Your task to perform on an android device: Open Android settings Image 0: 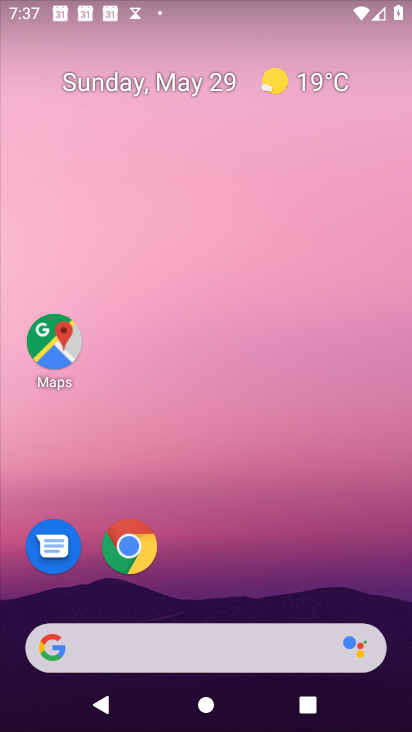
Step 0: drag from (196, 566) to (238, 3)
Your task to perform on an android device: Open Android settings Image 1: 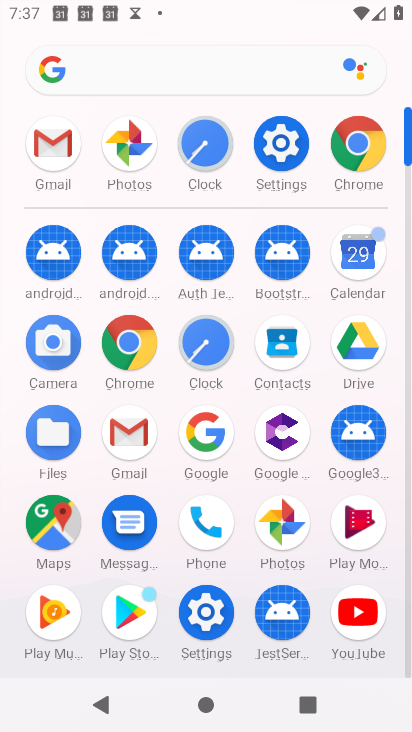
Step 1: click (278, 165)
Your task to perform on an android device: Open Android settings Image 2: 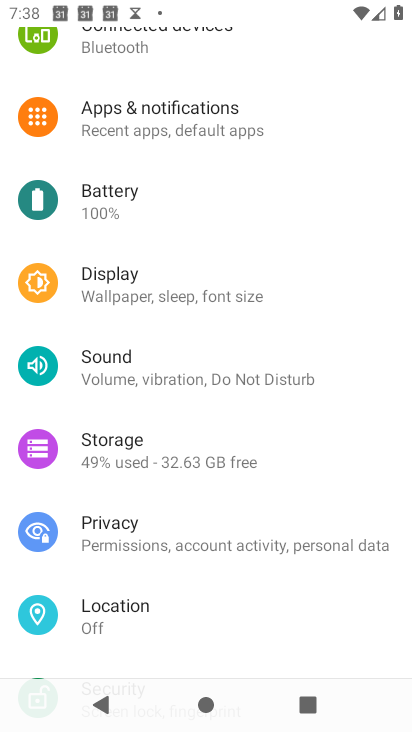
Step 2: drag from (138, 624) to (180, 42)
Your task to perform on an android device: Open Android settings Image 3: 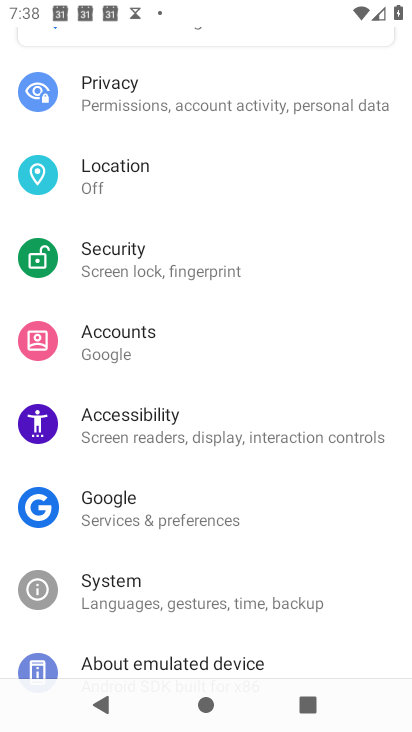
Step 3: click (99, 641)
Your task to perform on an android device: Open Android settings Image 4: 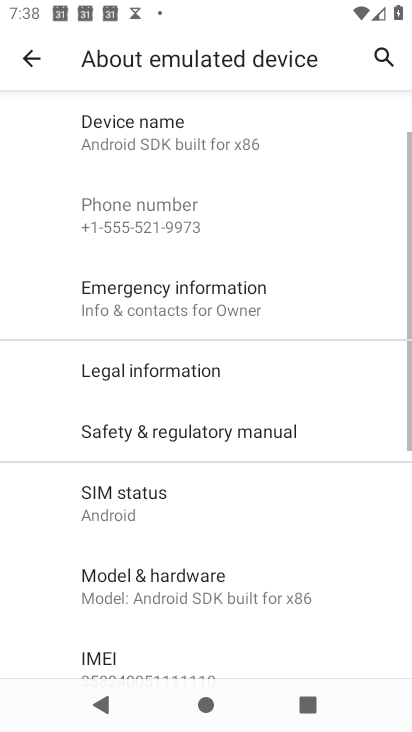
Step 4: drag from (186, 596) to (209, 212)
Your task to perform on an android device: Open Android settings Image 5: 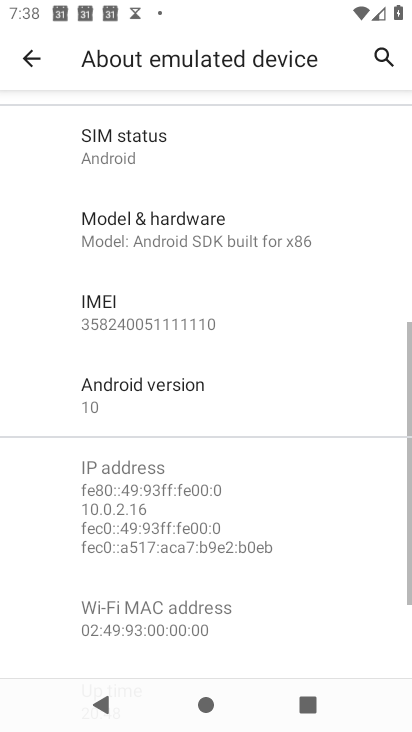
Step 5: click (145, 391)
Your task to perform on an android device: Open Android settings Image 6: 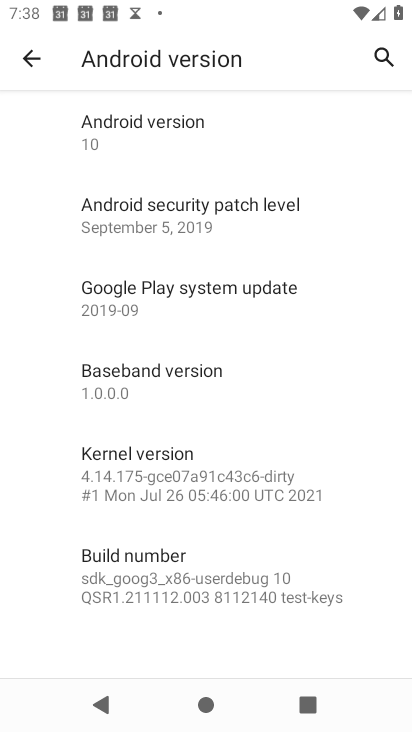
Step 6: task complete